Your task to perform on an android device: check battery use Image 0: 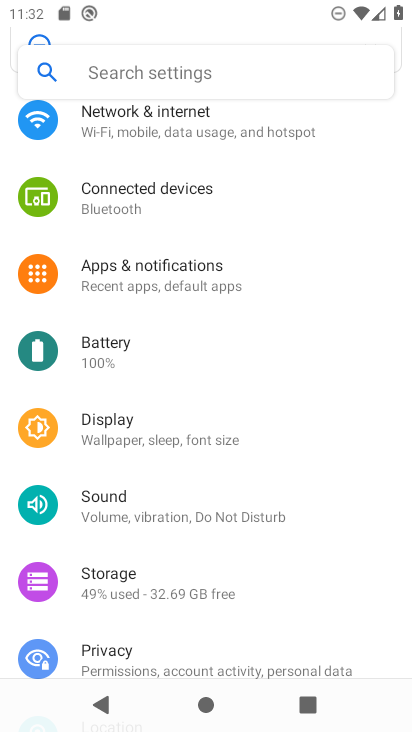
Step 0: click (140, 349)
Your task to perform on an android device: check battery use Image 1: 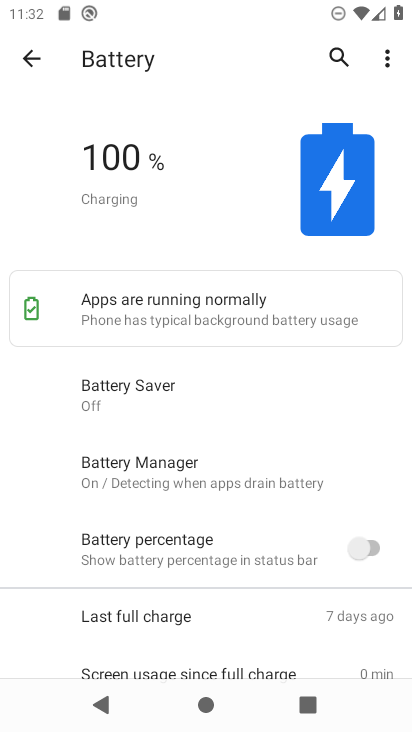
Step 1: click (389, 54)
Your task to perform on an android device: check battery use Image 2: 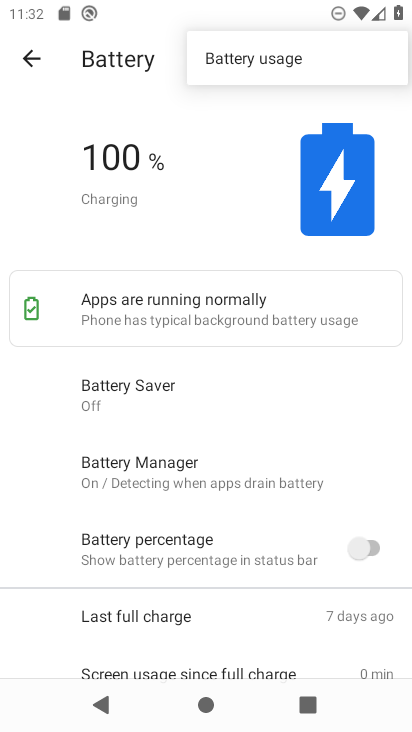
Step 2: click (255, 66)
Your task to perform on an android device: check battery use Image 3: 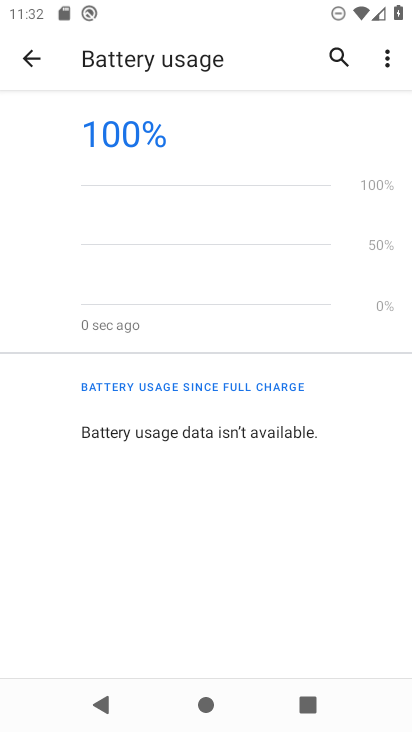
Step 3: task complete